Your task to perform on an android device: turn notification dots on Image 0: 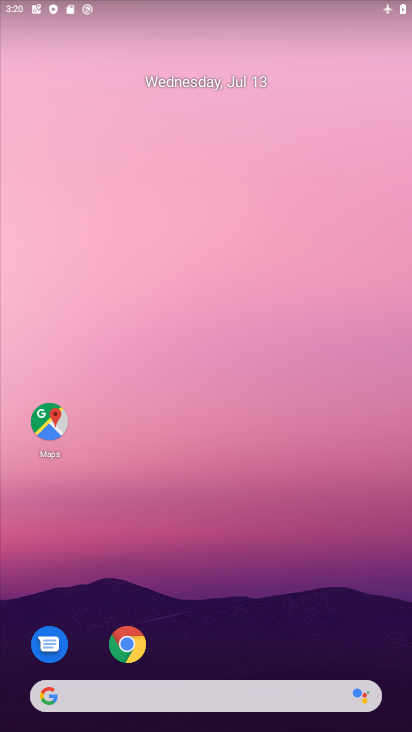
Step 0: drag from (277, 645) to (216, 143)
Your task to perform on an android device: turn notification dots on Image 1: 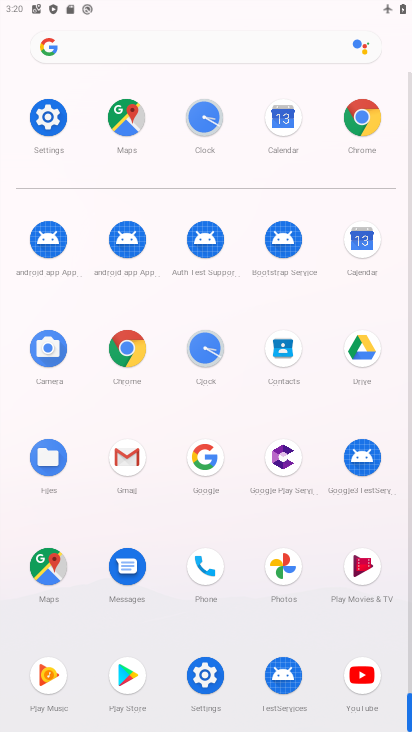
Step 1: click (43, 115)
Your task to perform on an android device: turn notification dots on Image 2: 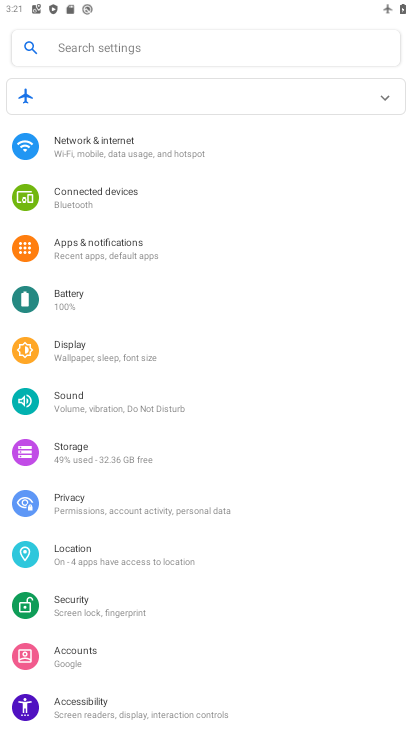
Step 2: click (119, 261)
Your task to perform on an android device: turn notification dots on Image 3: 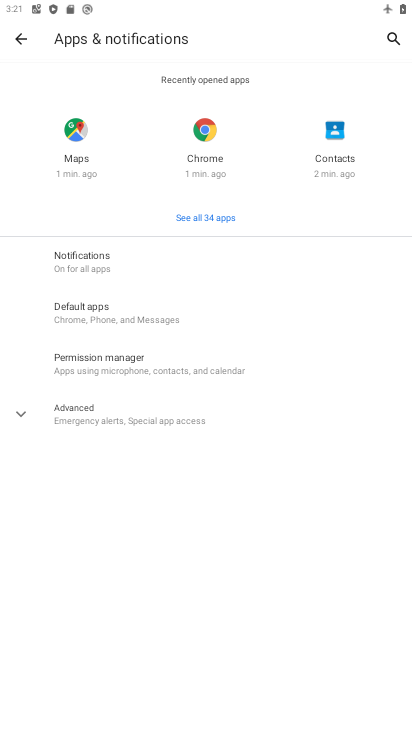
Step 3: click (119, 261)
Your task to perform on an android device: turn notification dots on Image 4: 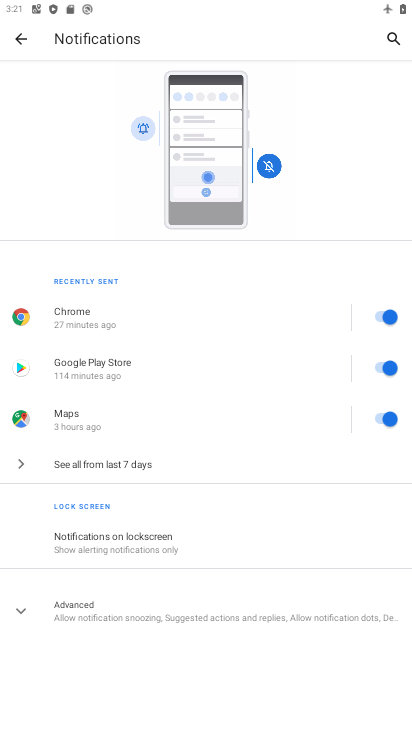
Step 4: click (112, 600)
Your task to perform on an android device: turn notification dots on Image 5: 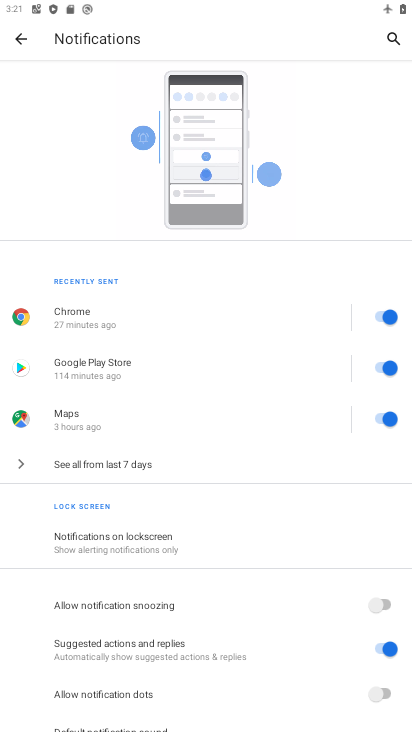
Step 5: click (390, 693)
Your task to perform on an android device: turn notification dots on Image 6: 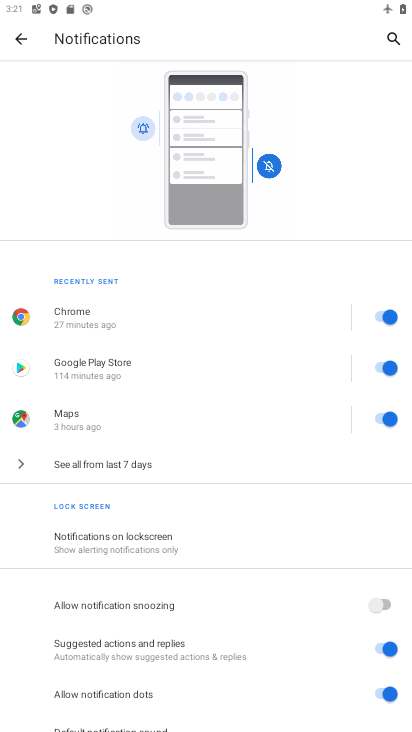
Step 6: task complete